Your task to perform on an android device: Open settings Image 0: 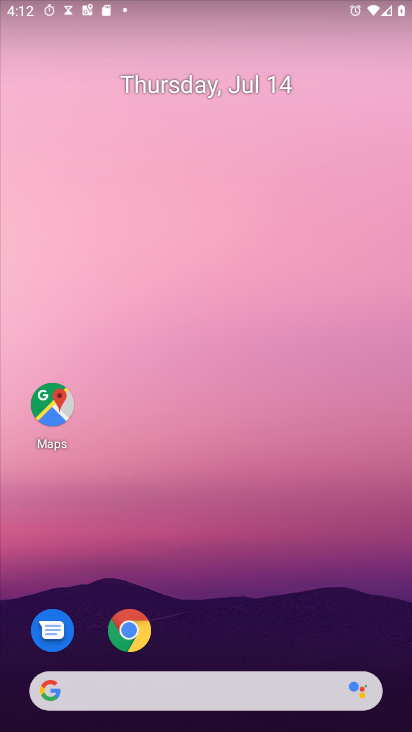
Step 0: drag from (218, 719) to (206, 8)
Your task to perform on an android device: Open settings Image 1: 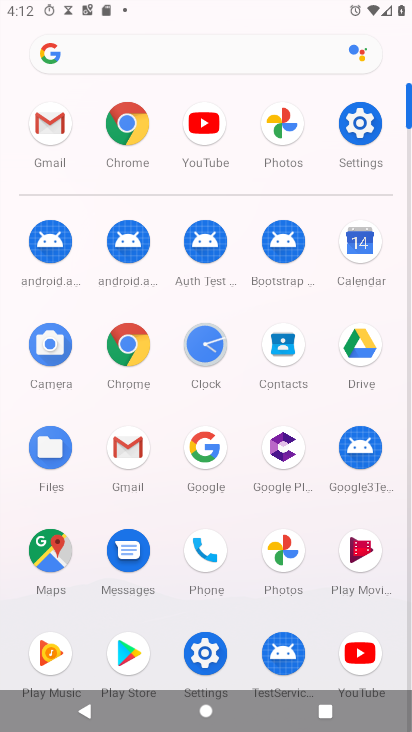
Step 1: click (359, 121)
Your task to perform on an android device: Open settings Image 2: 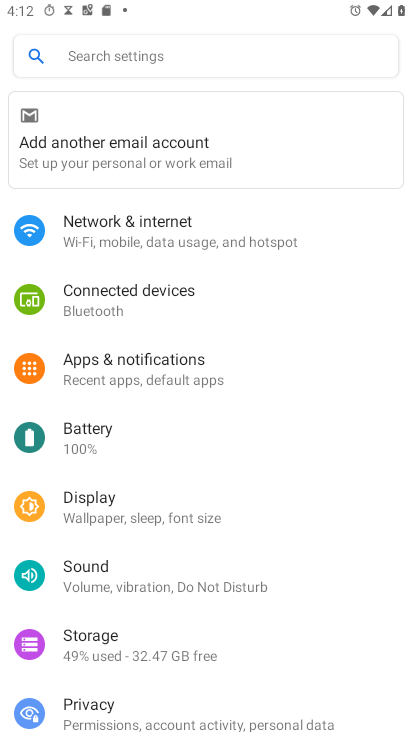
Step 2: task complete